Your task to perform on an android device: turn on sleep mode Image 0: 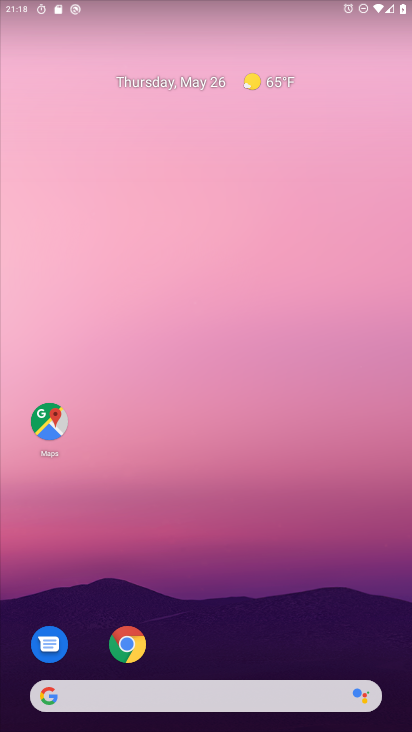
Step 0: drag from (184, 664) to (221, 277)
Your task to perform on an android device: turn on sleep mode Image 1: 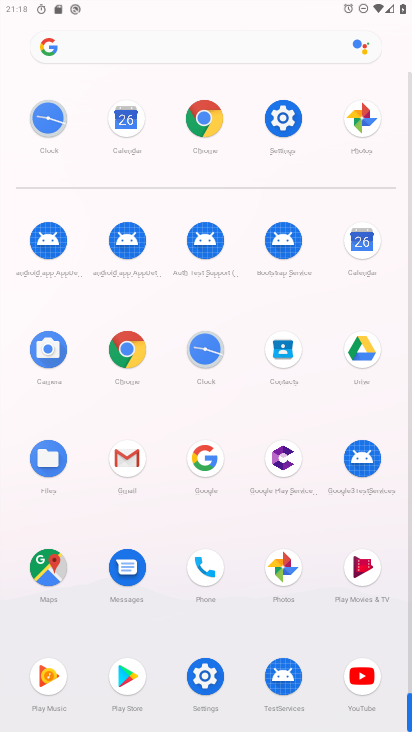
Step 1: click (288, 121)
Your task to perform on an android device: turn on sleep mode Image 2: 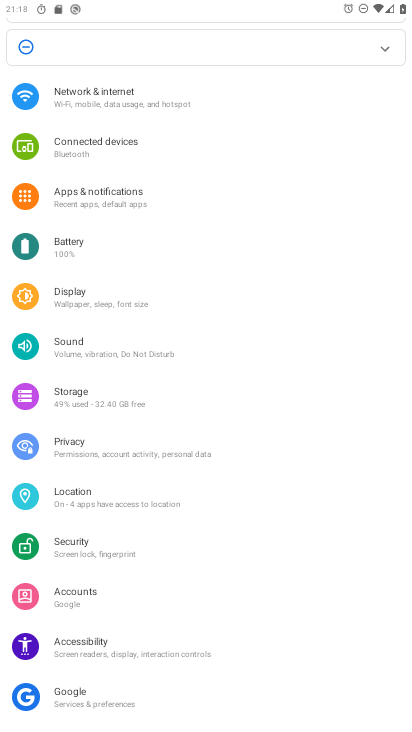
Step 2: click (193, 284)
Your task to perform on an android device: turn on sleep mode Image 3: 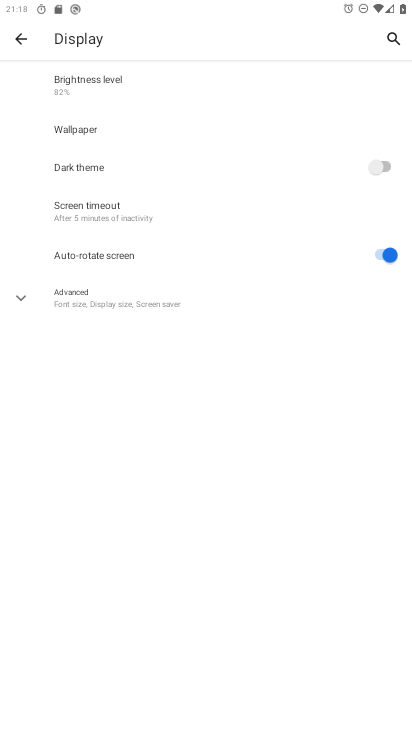
Step 3: click (157, 219)
Your task to perform on an android device: turn on sleep mode Image 4: 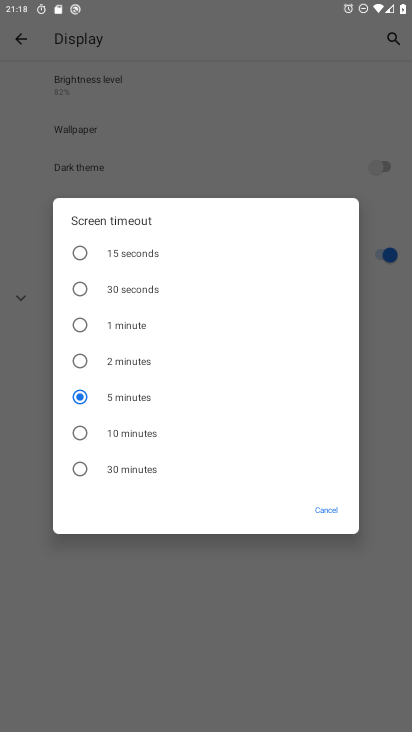
Step 4: task complete